Your task to perform on an android device: Open the calendar app, open the side menu, and click the "Day" option Image 0: 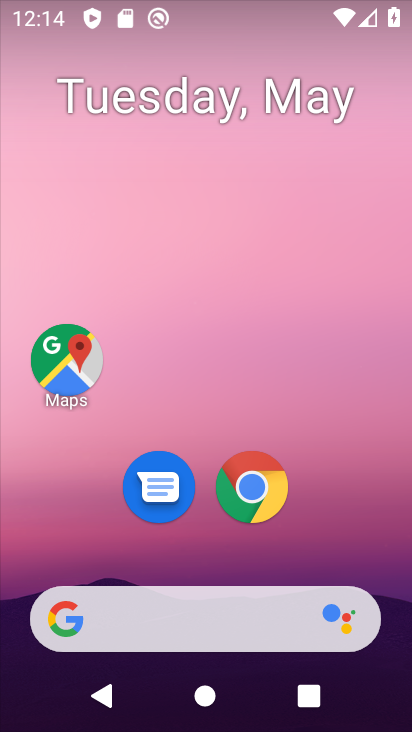
Step 0: drag from (347, 522) to (264, 13)
Your task to perform on an android device: Open the calendar app, open the side menu, and click the "Day" option Image 1: 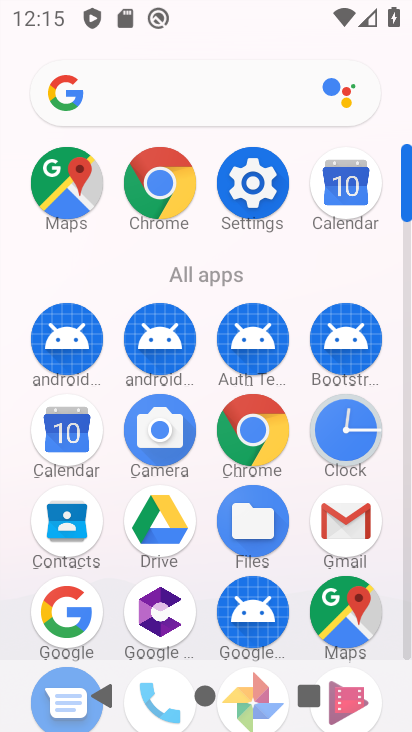
Step 1: drag from (21, 617) to (7, 225)
Your task to perform on an android device: Open the calendar app, open the side menu, and click the "Day" option Image 2: 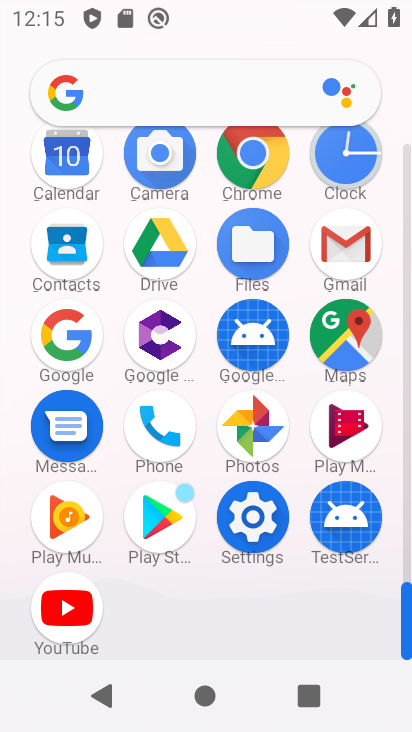
Step 2: click (63, 155)
Your task to perform on an android device: Open the calendar app, open the side menu, and click the "Day" option Image 3: 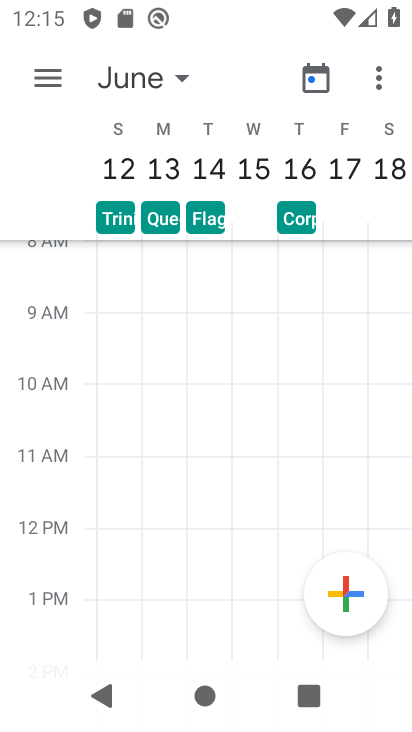
Step 3: click (55, 70)
Your task to perform on an android device: Open the calendar app, open the side menu, and click the "Day" option Image 4: 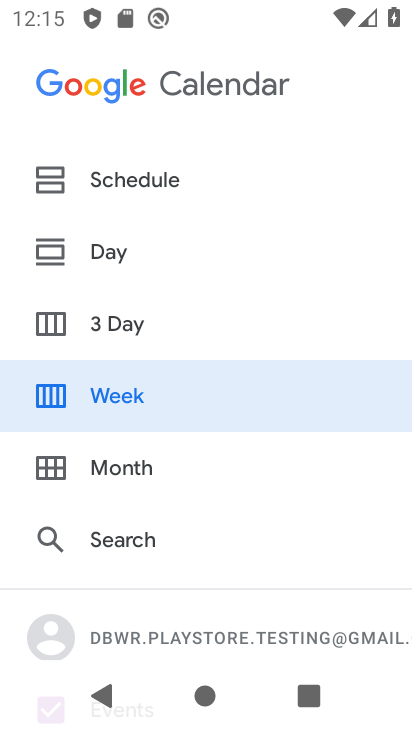
Step 4: click (117, 243)
Your task to perform on an android device: Open the calendar app, open the side menu, and click the "Day" option Image 5: 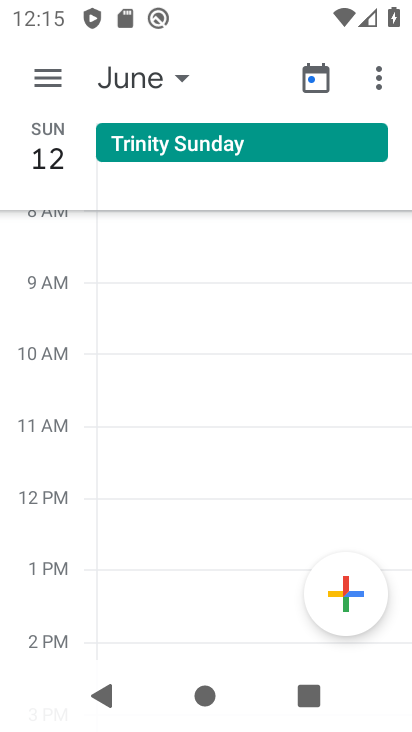
Step 5: click (51, 69)
Your task to perform on an android device: Open the calendar app, open the side menu, and click the "Day" option Image 6: 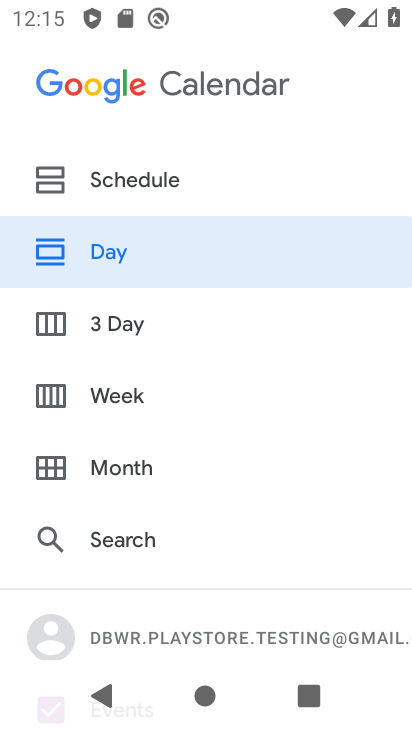
Step 6: click (237, 256)
Your task to perform on an android device: Open the calendar app, open the side menu, and click the "Day" option Image 7: 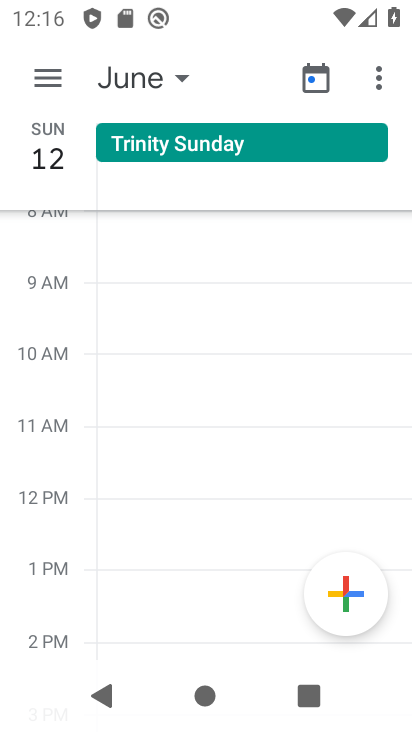
Step 7: task complete